Your task to perform on an android device: move a message to another label in the gmail app Image 0: 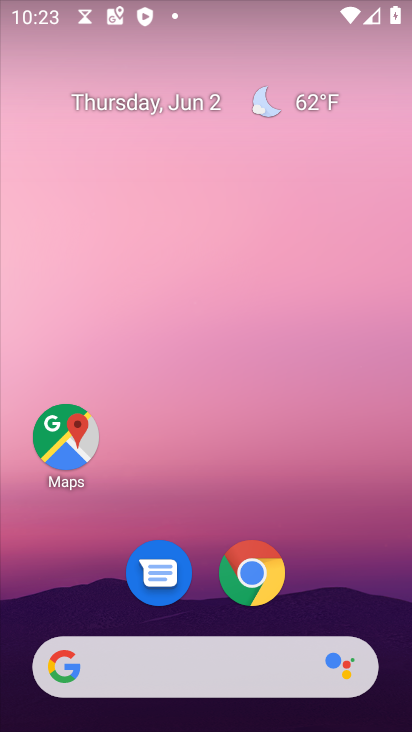
Step 0: drag from (325, 549) to (238, 29)
Your task to perform on an android device: move a message to another label in the gmail app Image 1: 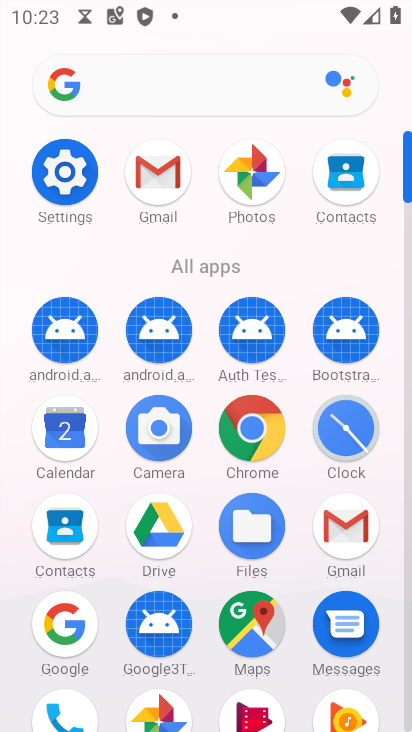
Step 1: click (156, 172)
Your task to perform on an android device: move a message to another label in the gmail app Image 2: 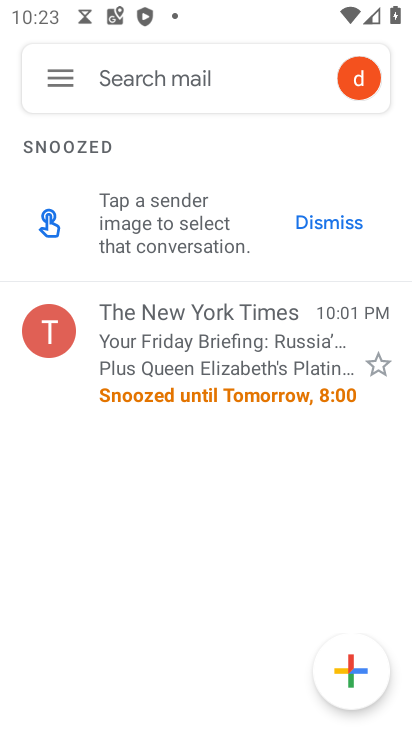
Step 2: click (198, 335)
Your task to perform on an android device: move a message to another label in the gmail app Image 3: 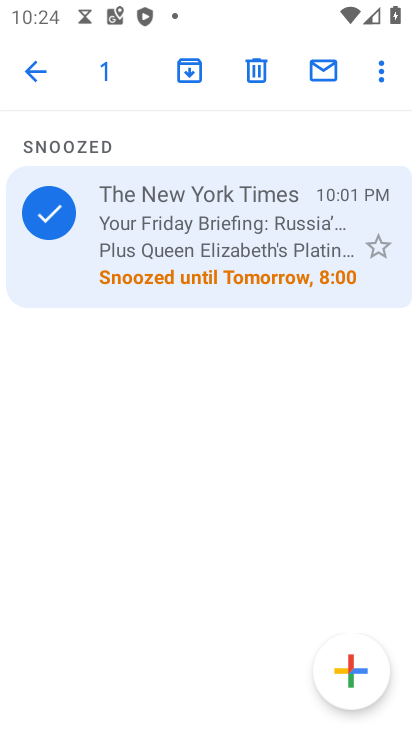
Step 3: click (379, 73)
Your task to perform on an android device: move a message to another label in the gmail app Image 4: 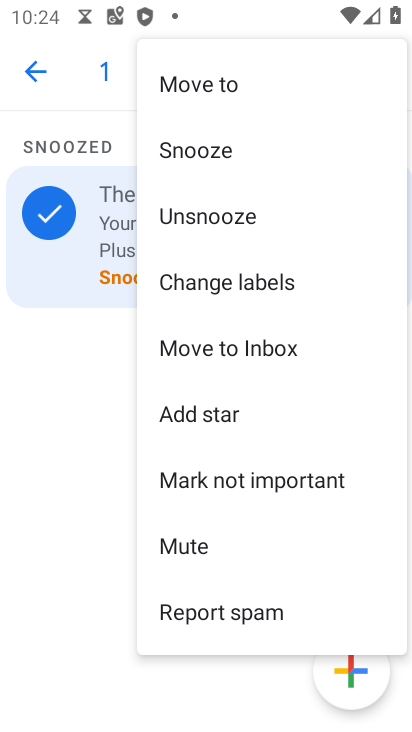
Step 4: click (241, 288)
Your task to perform on an android device: move a message to another label in the gmail app Image 5: 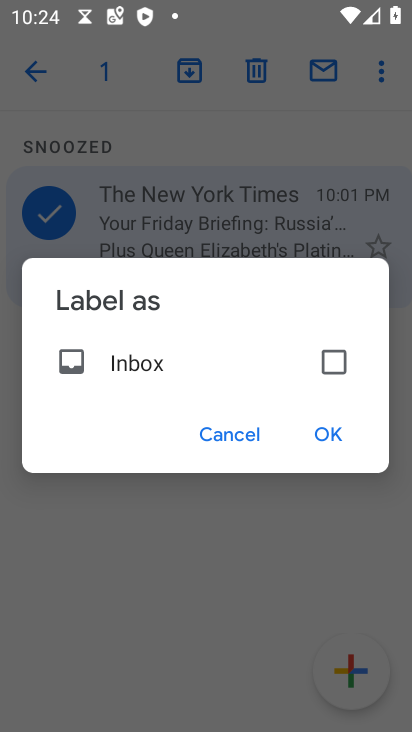
Step 5: click (327, 356)
Your task to perform on an android device: move a message to another label in the gmail app Image 6: 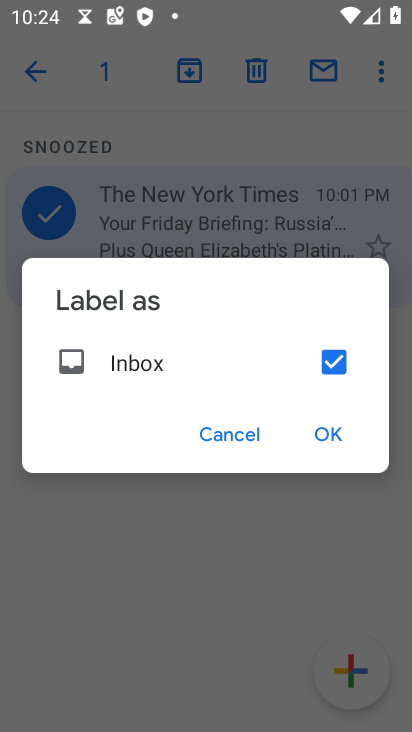
Step 6: click (342, 435)
Your task to perform on an android device: move a message to another label in the gmail app Image 7: 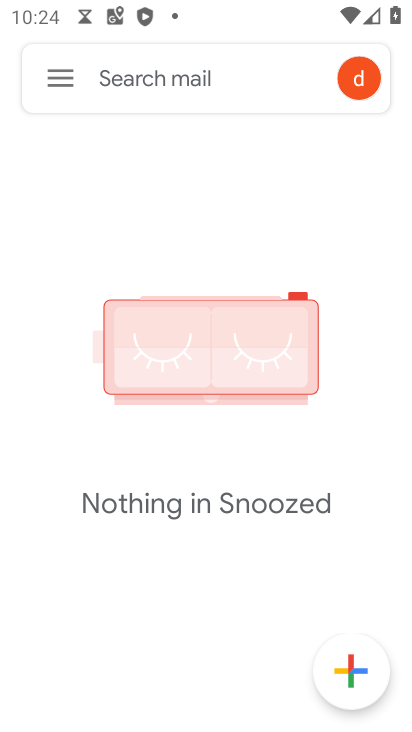
Step 7: task complete